Your task to perform on an android device: turn off picture-in-picture Image 0: 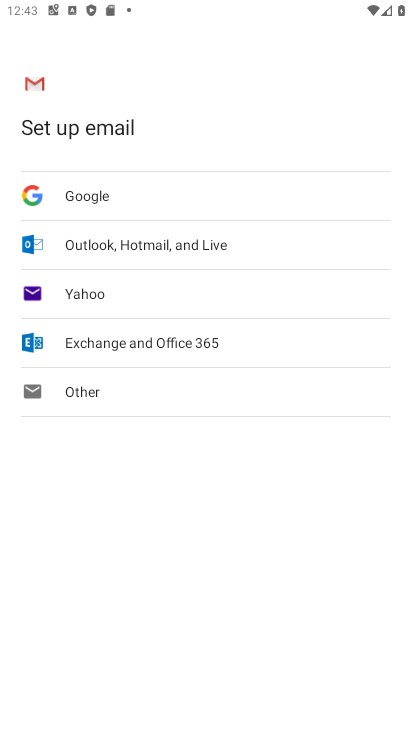
Step 0: press home button
Your task to perform on an android device: turn off picture-in-picture Image 1: 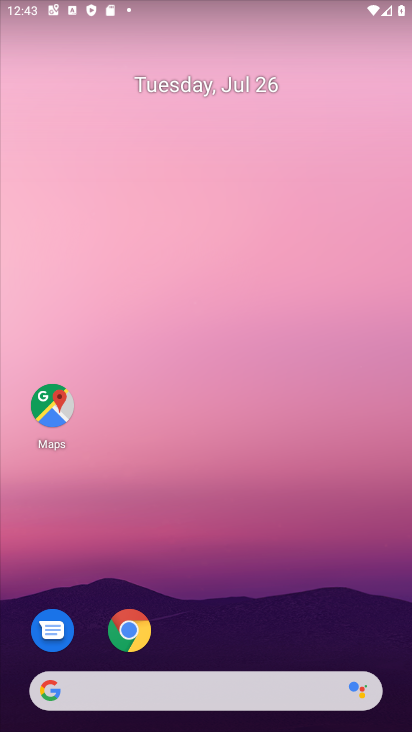
Step 1: drag from (358, 632) to (324, 152)
Your task to perform on an android device: turn off picture-in-picture Image 2: 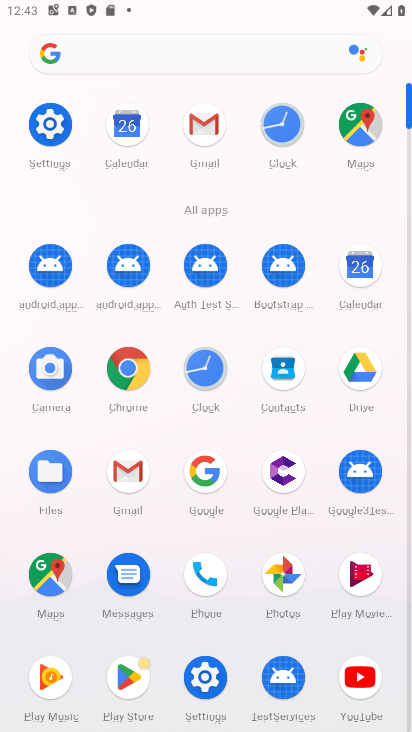
Step 2: click (206, 677)
Your task to perform on an android device: turn off picture-in-picture Image 3: 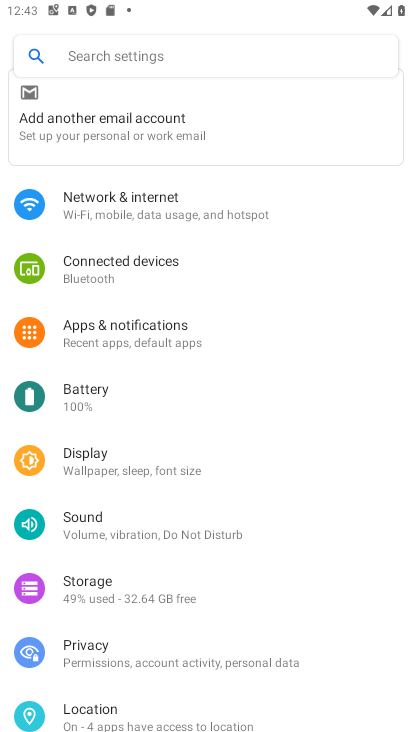
Step 3: click (108, 336)
Your task to perform on an android device: turn off picture-in-picture Image 4: 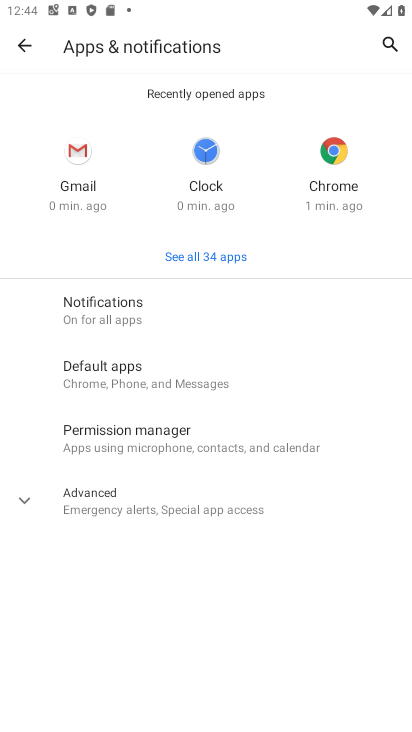
Step 4: click (17, 504)
Your task to perform on an android device: turn off picture-in-picture Image 5: 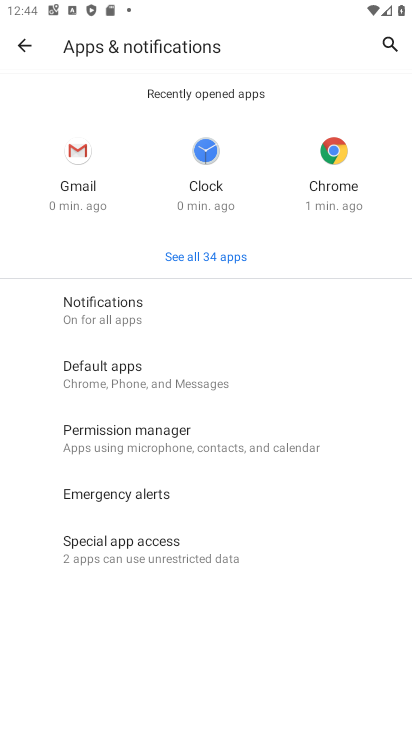
Step 5: click (110, 544)
Your task to perform on an android device: turn off picture-in-picture Image 6: 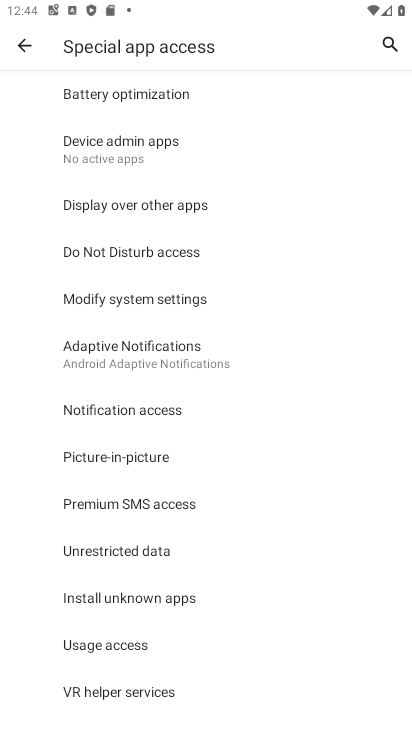
Step 6: click (107, 458)
Your task to perform on an android device: turn off picture-in-picture Image 7: 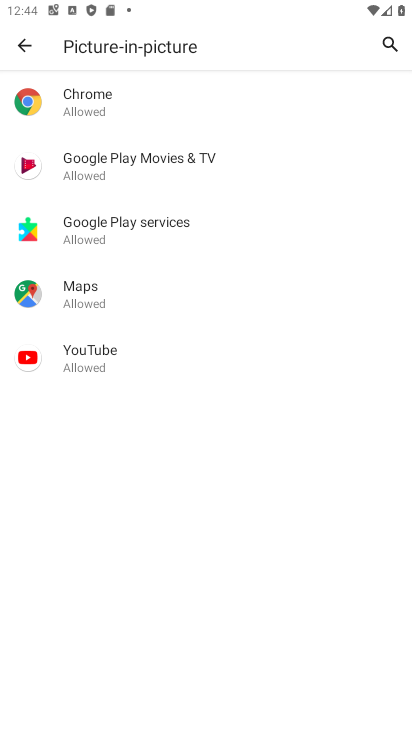
Step 7: click (87, 354)
Your task to perform on an android device: turn off picture-in-picture Image 8: 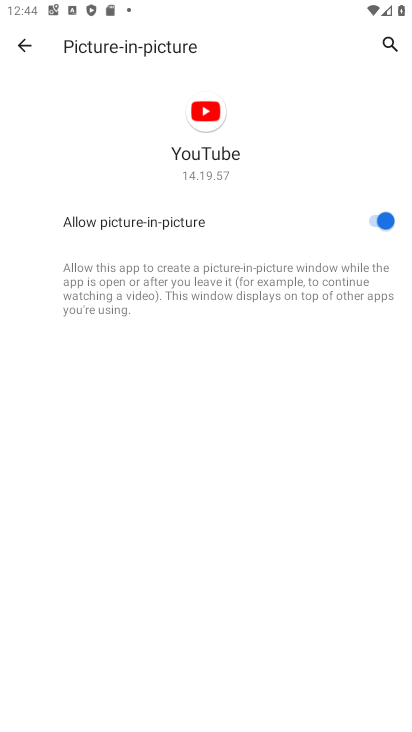
Step 8: click (372, 225)
Your task to perform on an android device: turn off picture-in-picture Image 9: 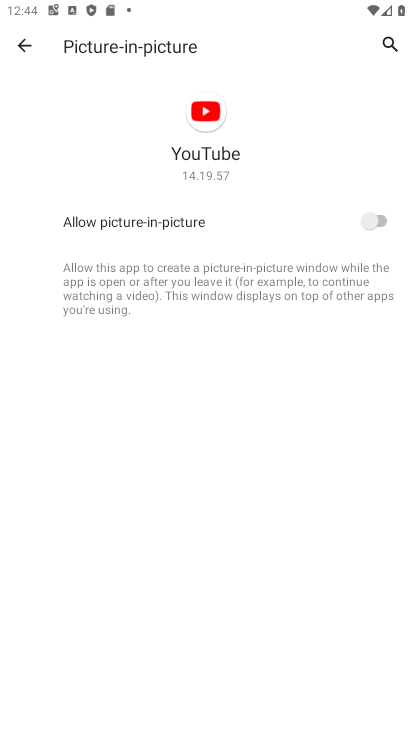
Step 9: task complete